Your task to perform on an android device: check storage Image 0: 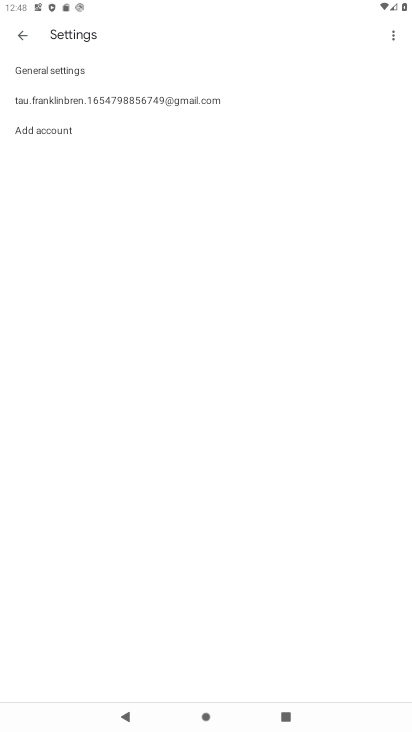
Step 0: press home button
Your task to perform on an android device: check storage Image 1: 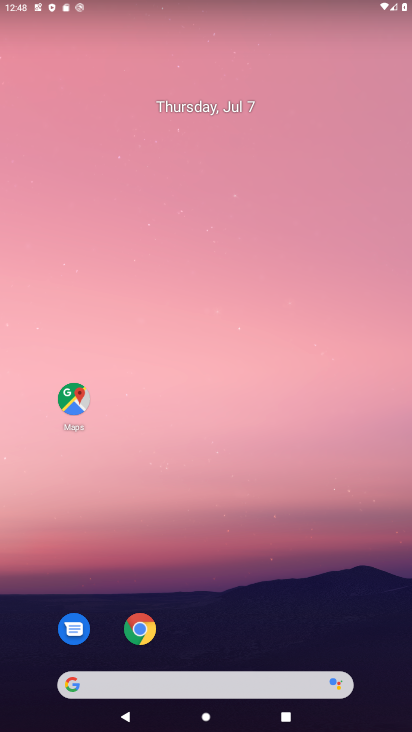
Step 1: drag from (232, 602) to (239, 180)
Your task to perform on an android device: check storage Image 2: 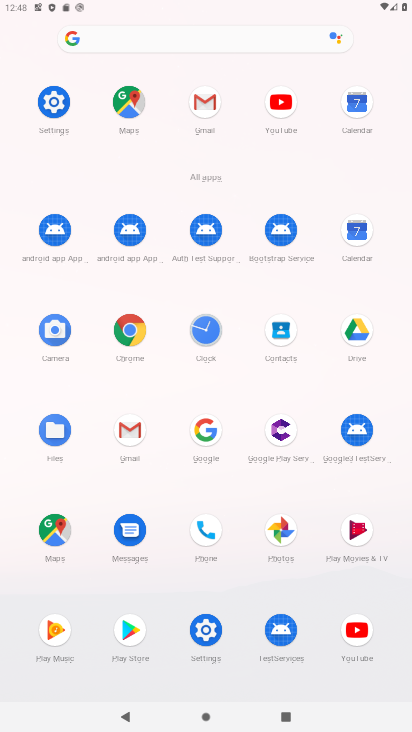
Step 2: click (55, 101)
Your task to perform on an android device: check storage Image 3: 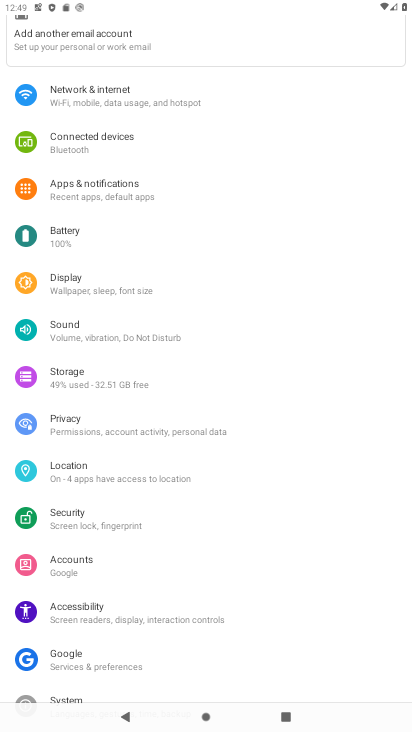
Step 3: click (69, 370)
Your task to perform on an android device: check storage Image 4: 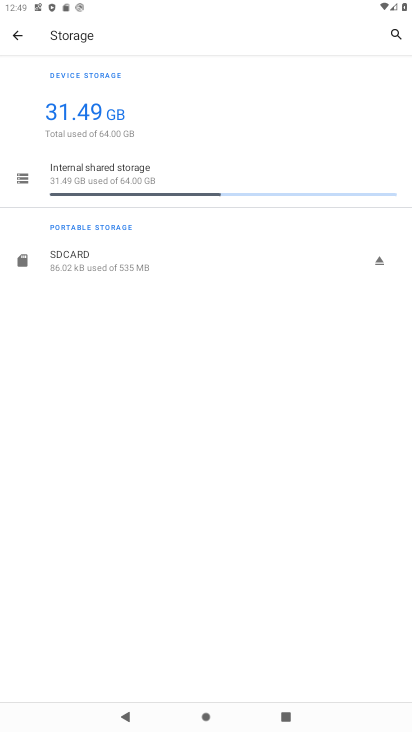
Step 4: task complete